Your task to perform on an android device: move a message to another label in the gmail app Image 0: 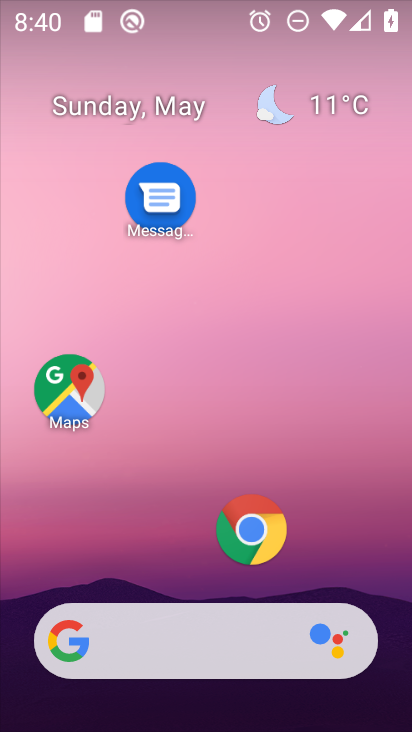
Step 0: press home button
Your task to perform on an android device: move a message to another label in the gmail app Image 1: 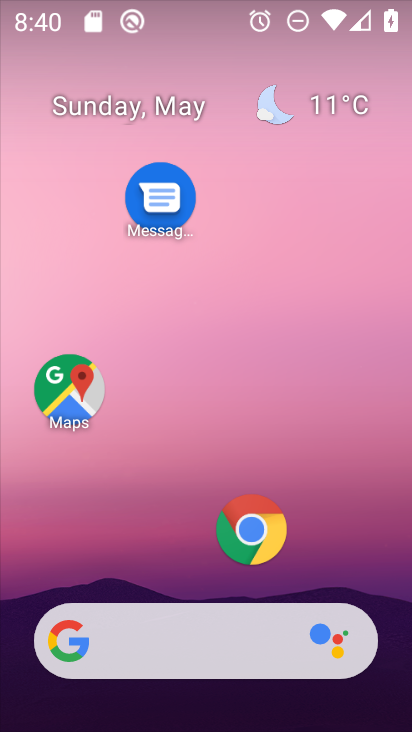
Step 1: drag from (198, 568) to (292, 36)
Your task to perform on an android device: move a message to another label in the gmail app Image 2: 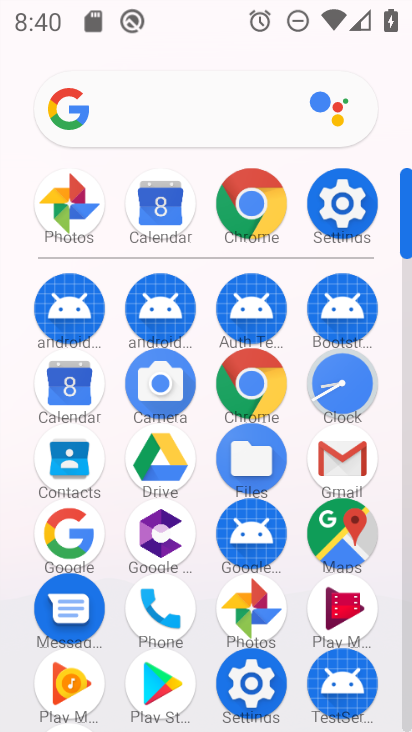
Step 2: click (344, 459)
Your task to perform on an android device: move a message to another label in the gmail app Image 3: 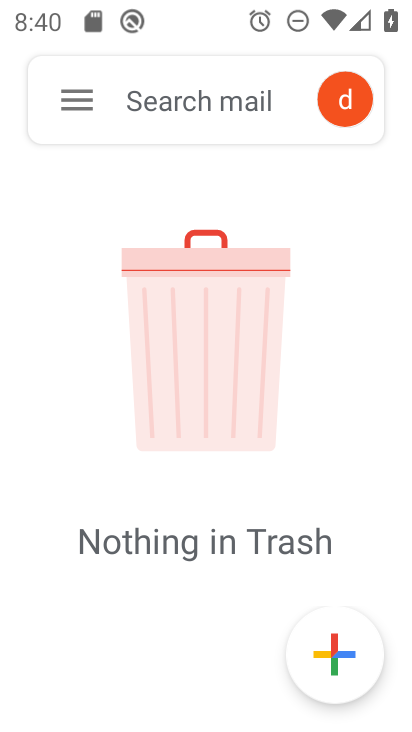
Step 3: click (72, 105)
Your task to perform on an android device: move a message to another label in the gmail app Image 4: 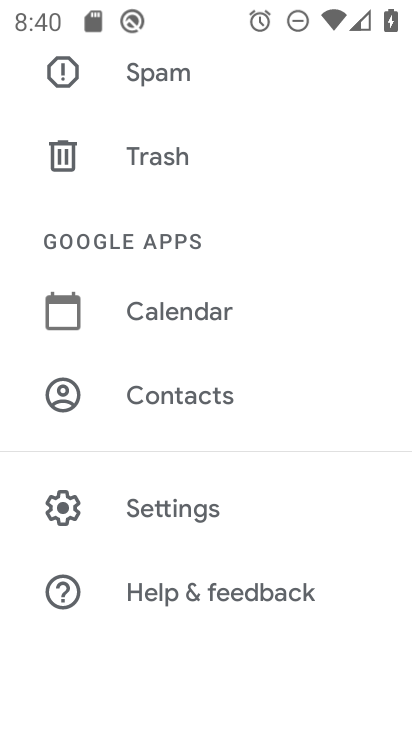
Step 4: drag from (150, 114) to (162, 428)
Your task to perform on an android device: move a message to another label in the gmail app Image 5: 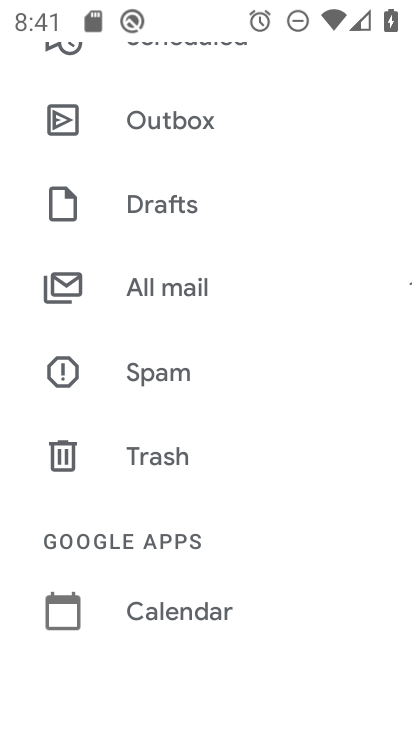
Step 5: click (152, 275)
Your task to perform on an android device: move a message to another label in the gmail app Image 6: 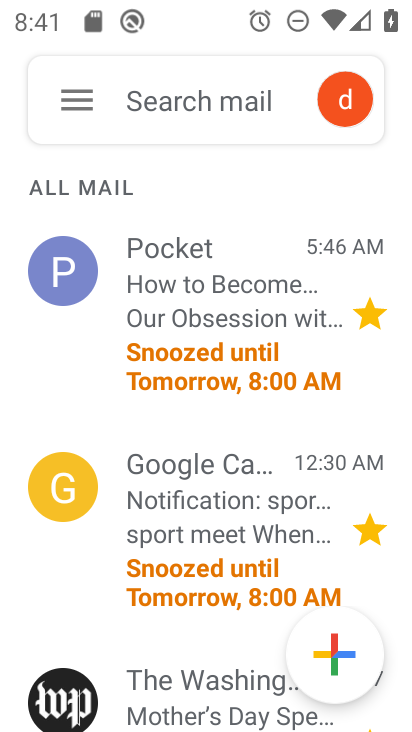
Step 6: click (75, 283)
Your task to perform on an android device: move a message to another label in the gmail app Image 7: 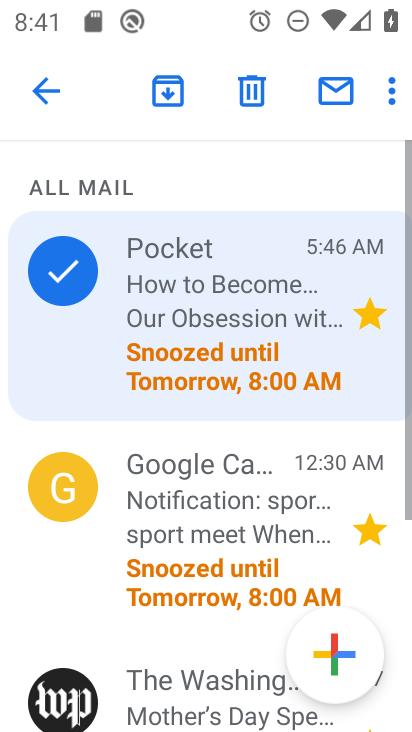
Step 7: click (391, 86)
Your task to perform on an android device: move a message to another label in the gmail app Image 8: 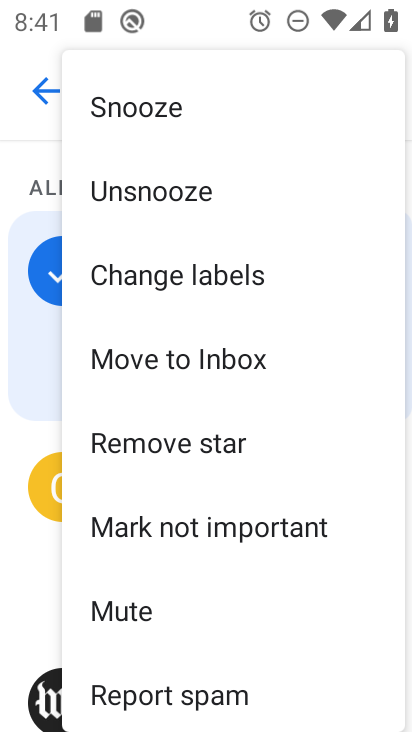
Step 8: click (202, 357)
Your task to perform on an android device: move a message to another label in the gmail app Image 9: 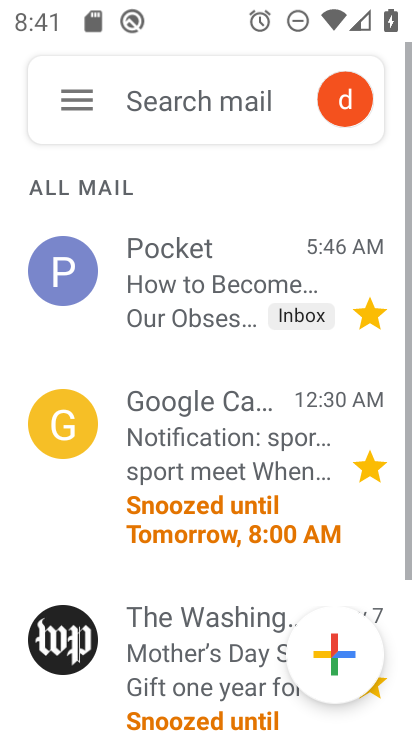
Step 9: task complete